Your task to perform on an android device: Open maps Image 0: 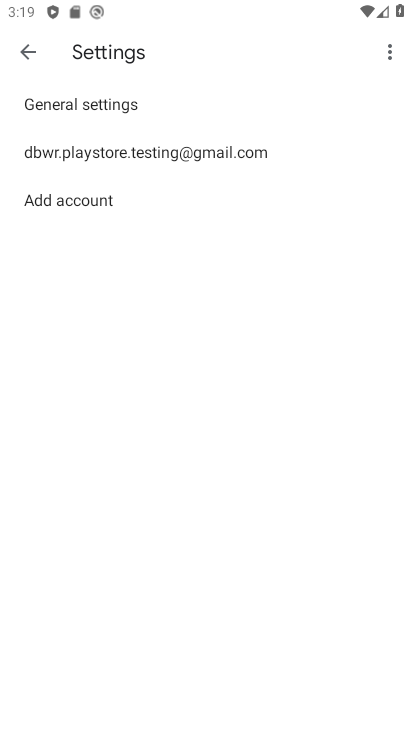
Step 0: press home button
Your task to perform on an android device: Open maps Image 1: 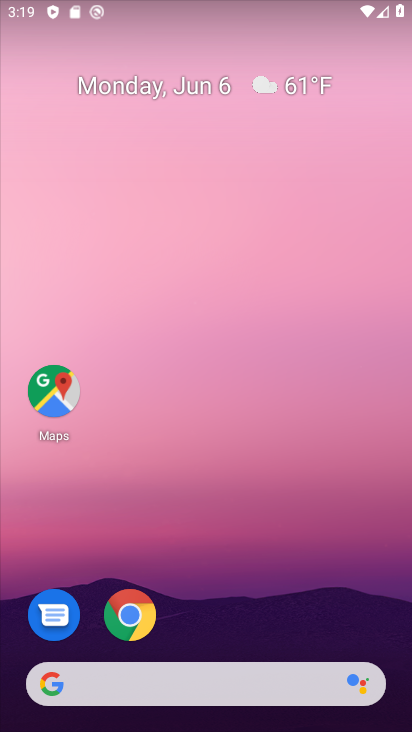
Step 1: click (52, 390)
Your task to perform on an android device: Open maps Image 2: 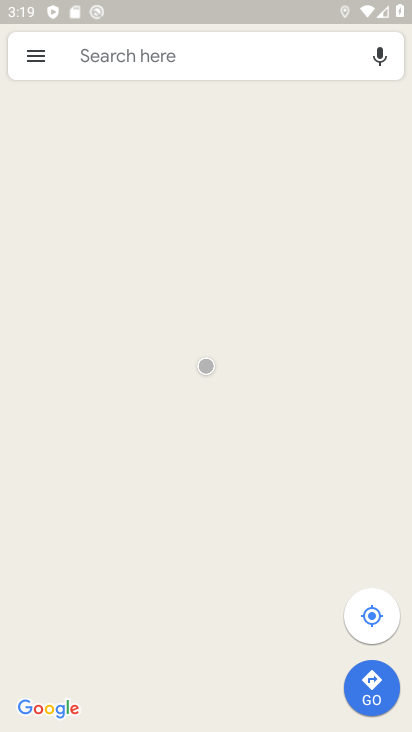
Step 2: task complete